Your task to perform on an android device: turn off translation in the chrome app Image 0: 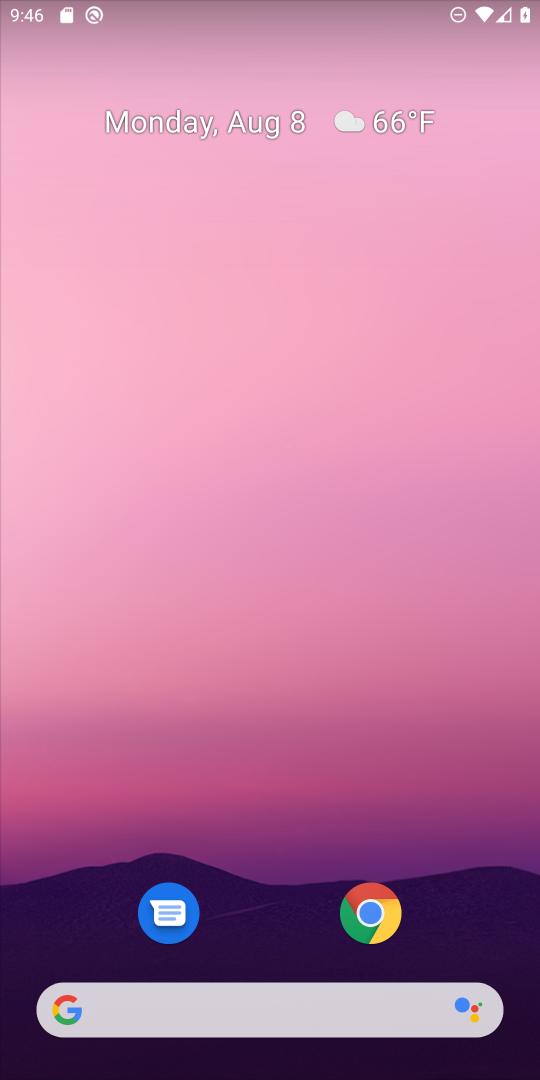
Step 0: click (371, 915)
Your task to perform on an android device: turn off translation in the chrome app Image 1: 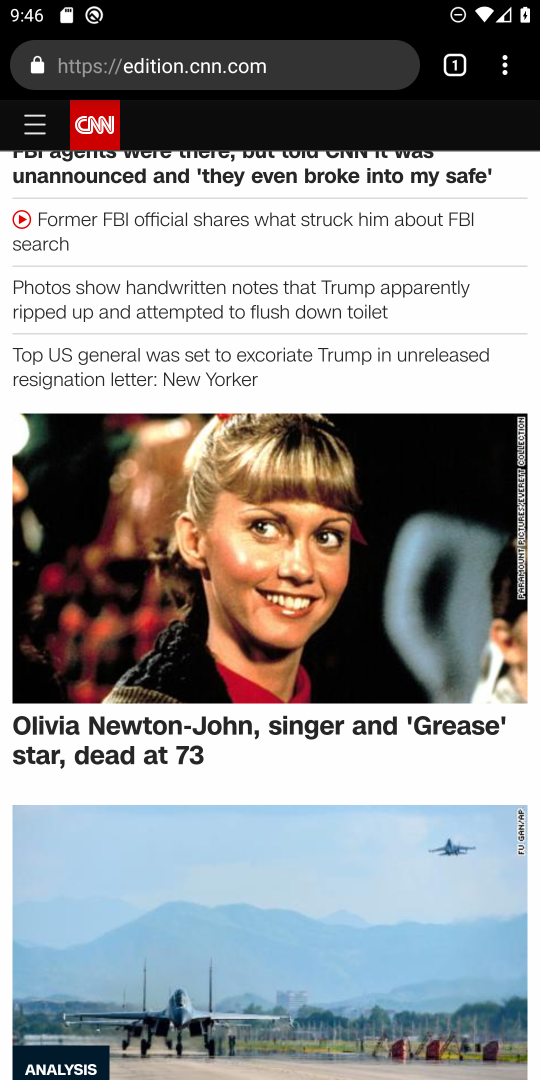
Step 1: drag from (509, 62) to (278, 787)
Your task to perform on an android device: turn off translation in the chrome app Image 2: 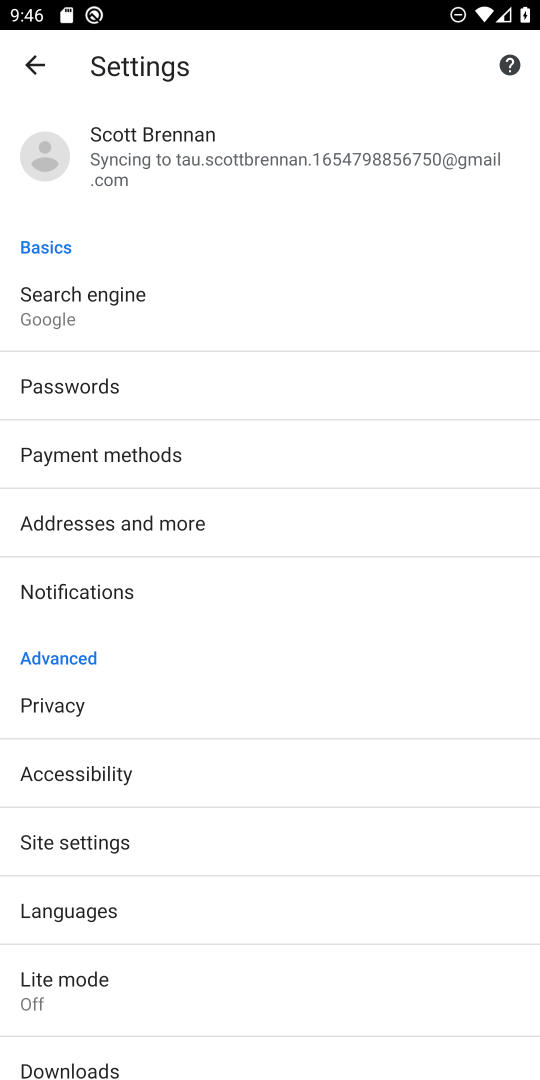
Step 2: click (109, 901)
Your task to perform on an android device: turn off translation in the chrome app Image 3: 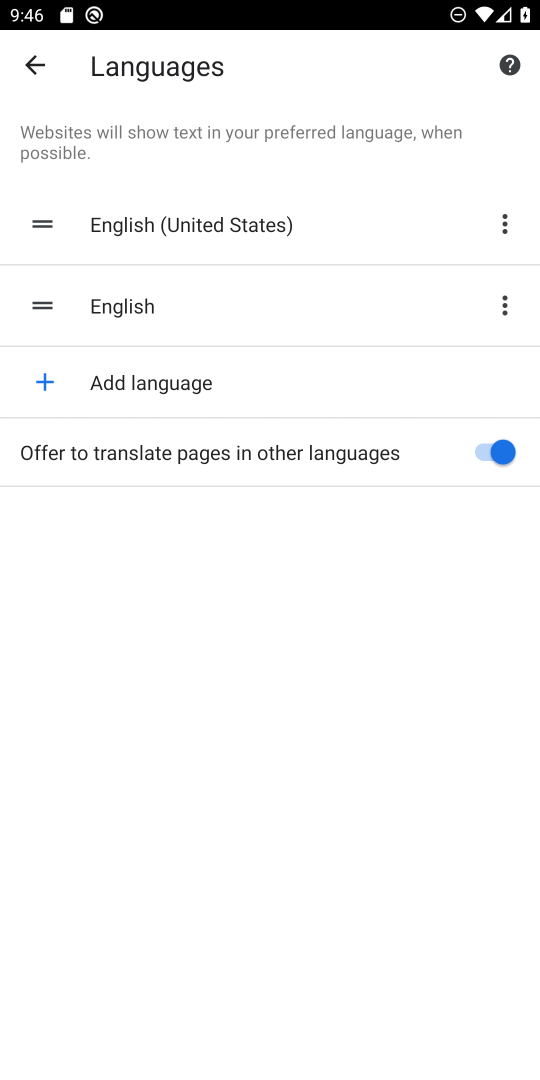
Step 3: click (477, 454)
Your task to perform on an android device: turn off translation in the chrome app Image 4: 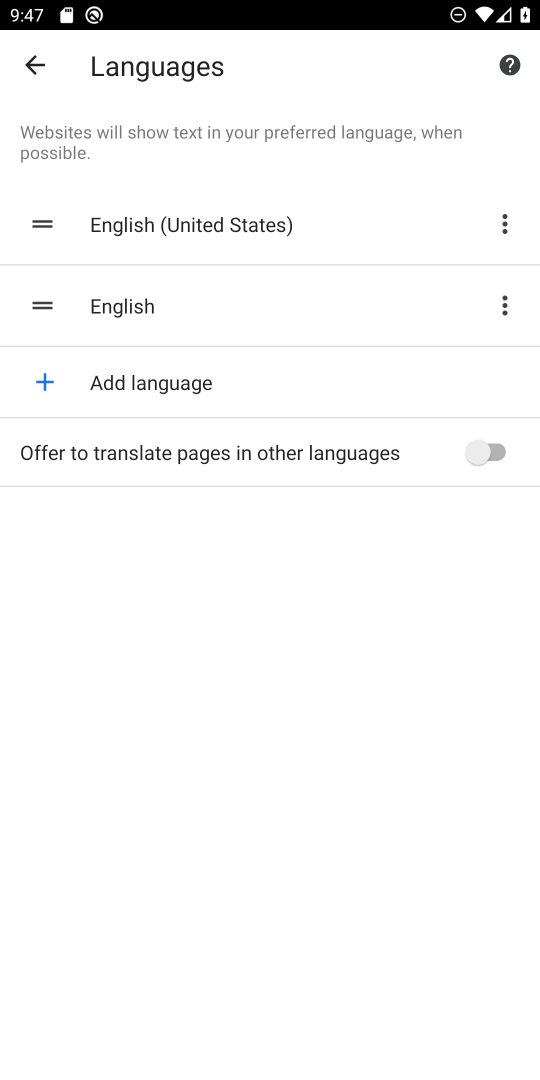
Step 4: task complete